Your task to perform on an android device: turn off location history Image 0: 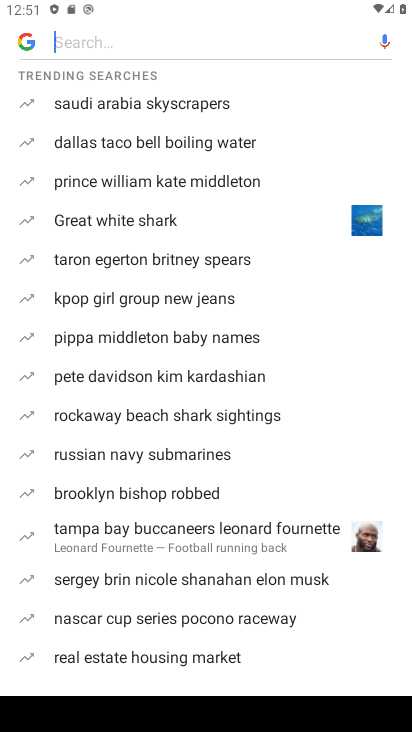
Step 0: press home button
Your task to perform on an android device: turn off location history Image 1: 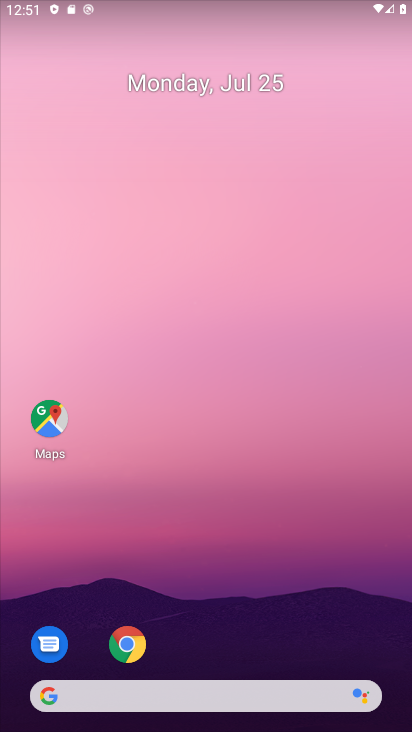
Step 1: drag from (215, 725) to (210, 397)
Your task to perform on an android device: turn off location history Image 2: 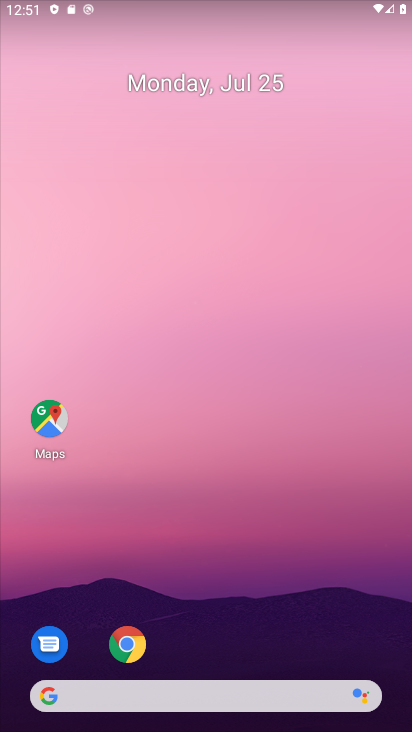
Step 2: click (219, 729)
Your task to perform on an android device: turn off location history Image 3: 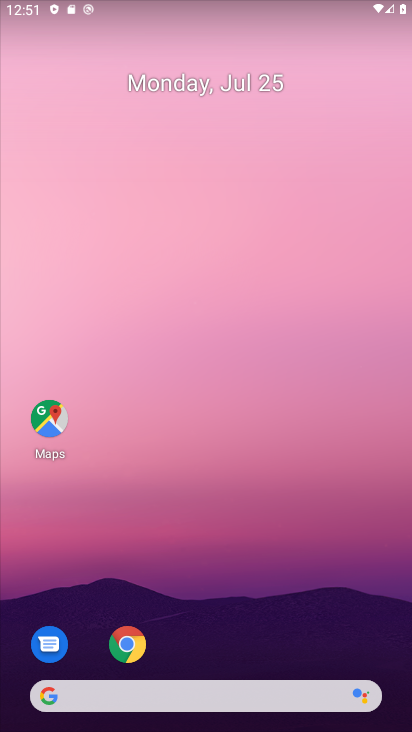
Step 3: drag from (214, 388) to (213, 247)
Your task to perform on an android device: turn off location history Image 4: 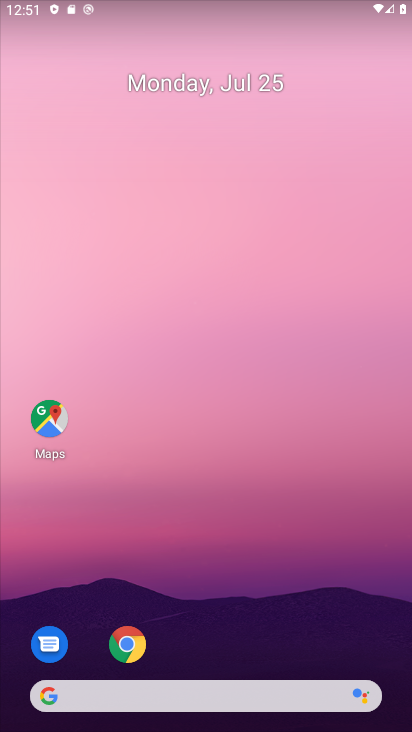
Step 4: click (210, 719)
Your task to perform on an android device: turn off location history Image 5: 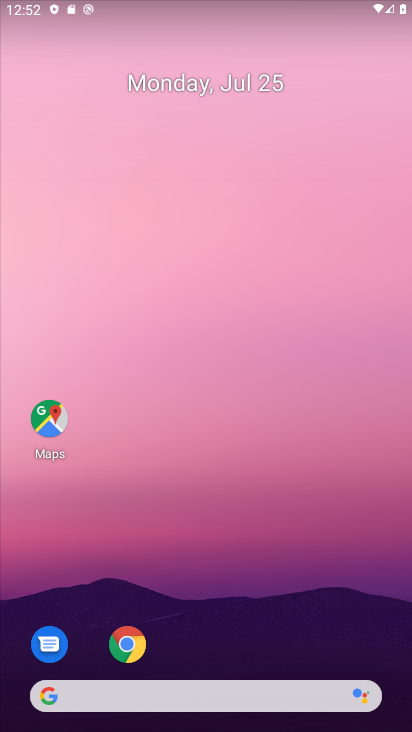
Step 5: drag from (220, 723) to (220, 216)
Your task to perform on an android device: turn off location history Image 6: 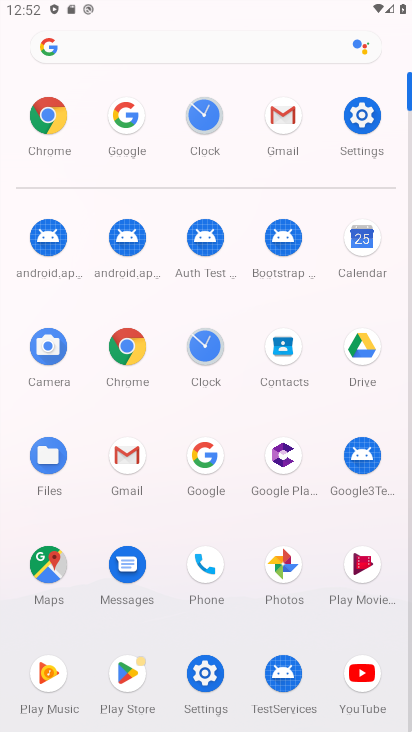
Step 6: click (363, 114)
Your task to perform on an android device: turn off location history Image 7: 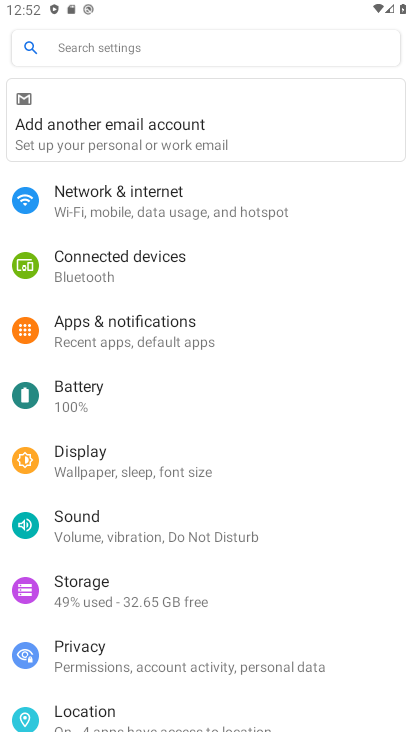
Step 7: click (83, 715)
Your task to perform on an android device: turn off location history Image 8: 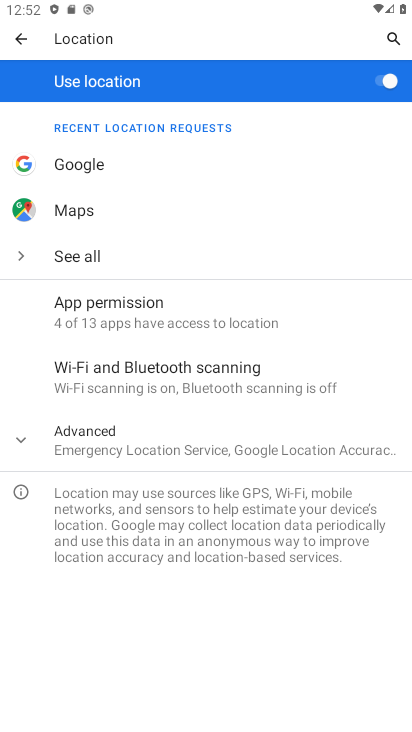
Step 8: click (81, 431)
Your task to perform on an android device: turn off location history Image 9: 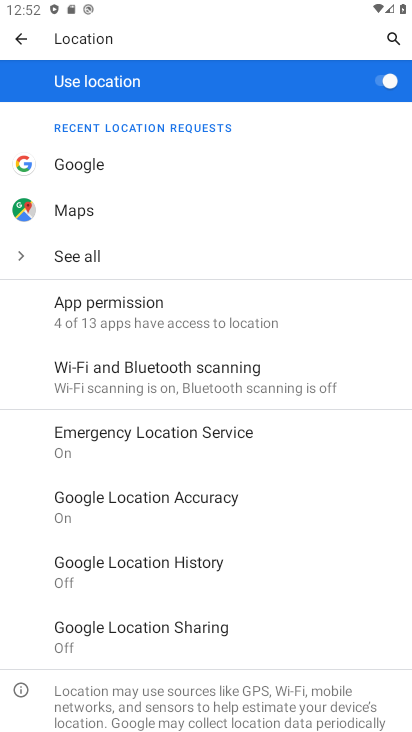
Step 9: click (118, 559)
Your task to perform on an android device: turn off location history Image 10: 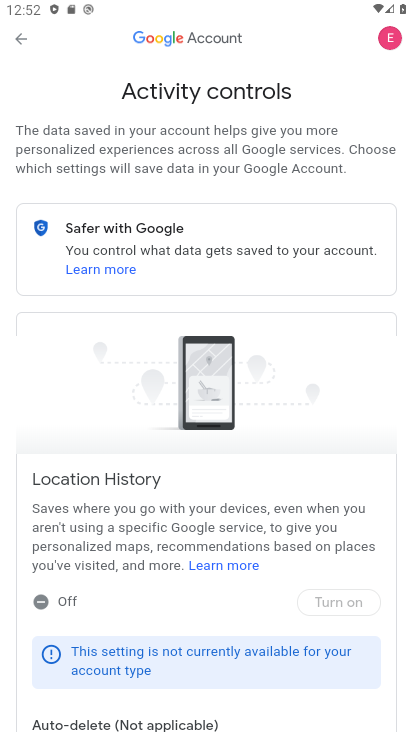
Step 10: task complete